Your task to perform on an android device: toggle data saver in the chrome app Image 0: 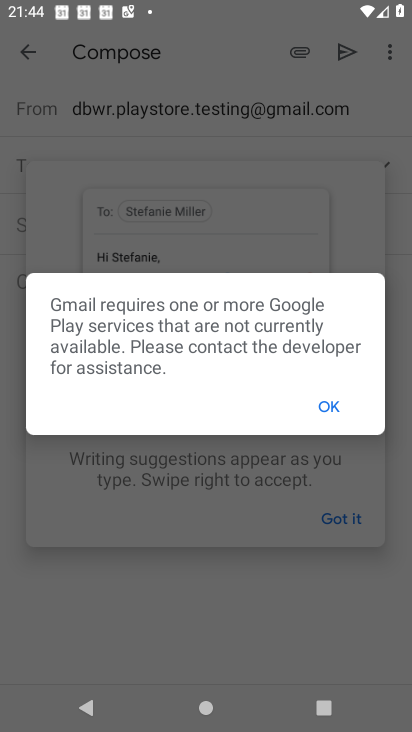
Step 0: press home button
Your task to perform on an android device: toggle data saver in the chrome app Image 1: 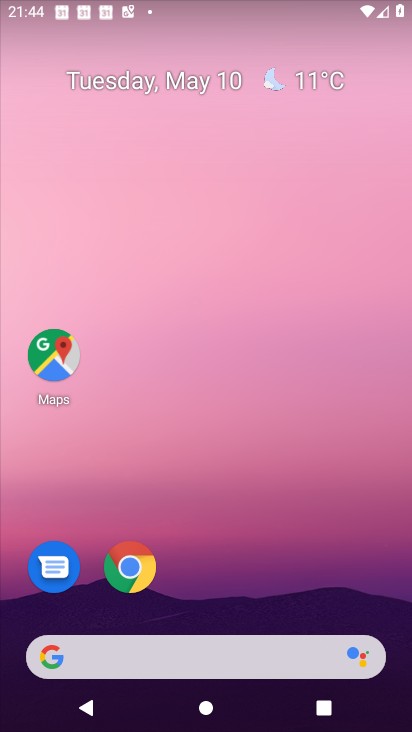
Step 1: drag from (184, 639) to (232, 193)
Your task to perform on an android device: toggle data saver in the chrome app Image 2: 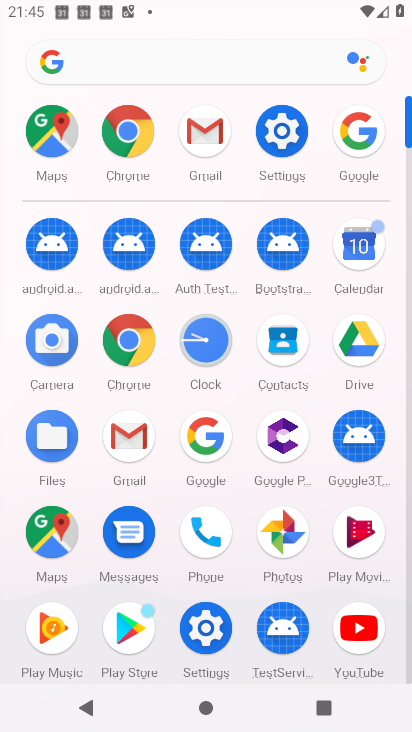
Step 2: click (123, 133)
Your task to perform on an android device: toggle data saver in the chrome app Image 3: 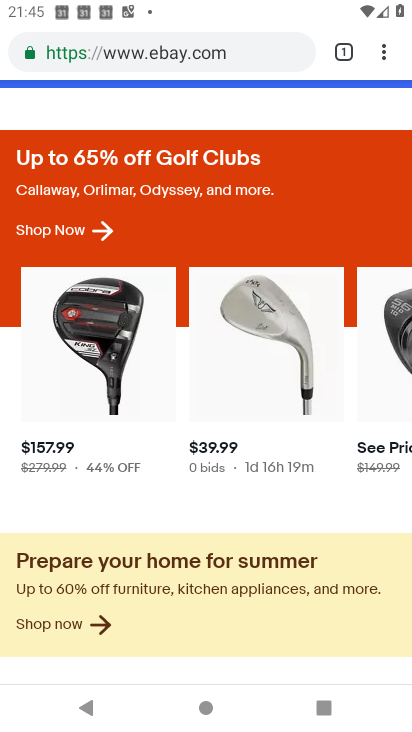
Step 3: click (383, 50)
Your task to perform on an android device: toggle data saver in the chrome app Image 4: 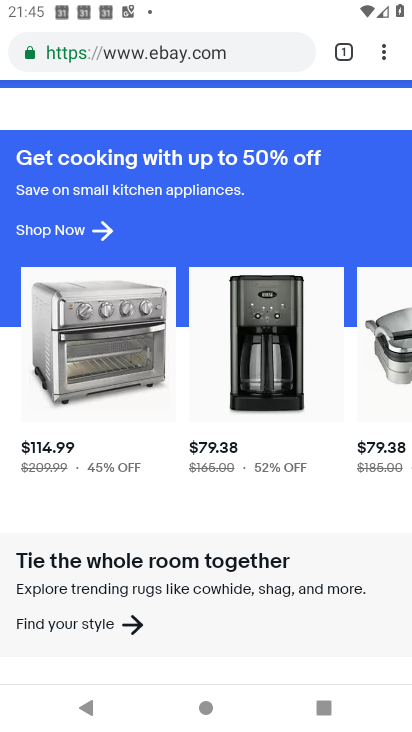
Step 4: click (383, 50)
Your task to perform on an android device: toggle data saver in the chrome app Image 5: 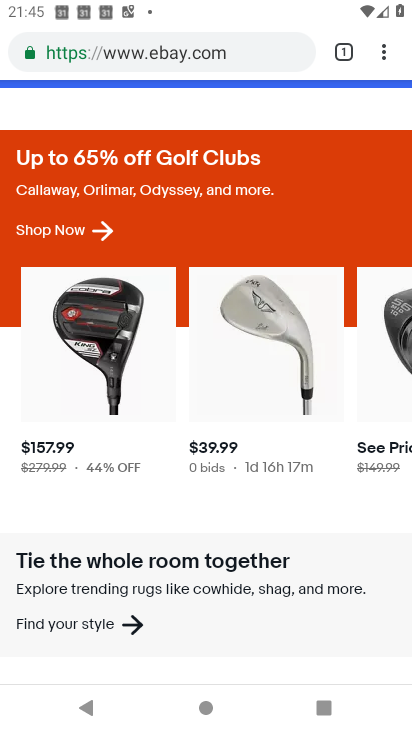
Step 5: click (383, 50)
Your task to perform on an android device: toggle data saver in the chrome app Image 6: 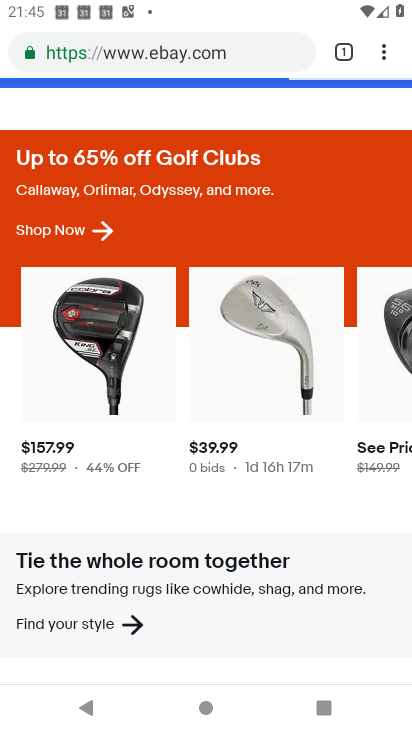
Step 6: click (383, 50)
Your task to perform on an android device: toggle data saver in the chrome app Image 7: 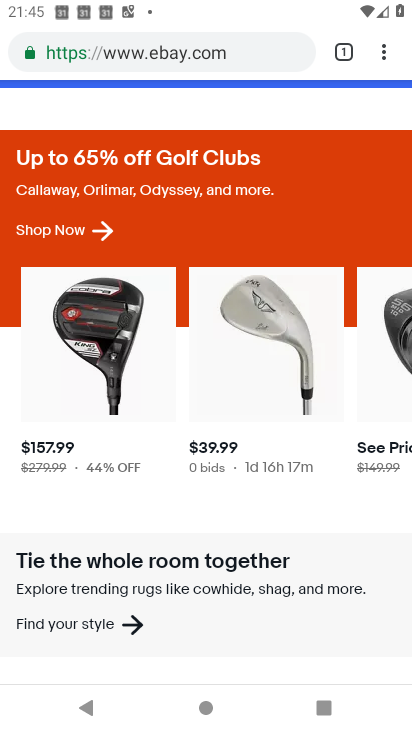
Step 7: click (383, 50)
Your task to perform on an android device: toggle data saver in the chrome app Image 8: 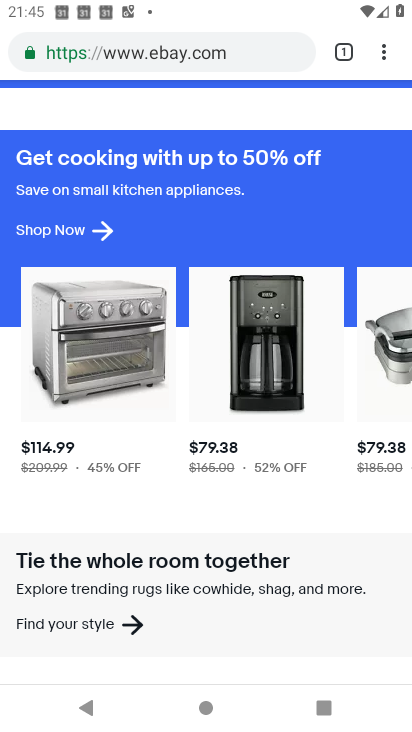
Step 8: click (378, 53)
Your task to perform on an android device: toggle data saver in the chrome app Image 9: 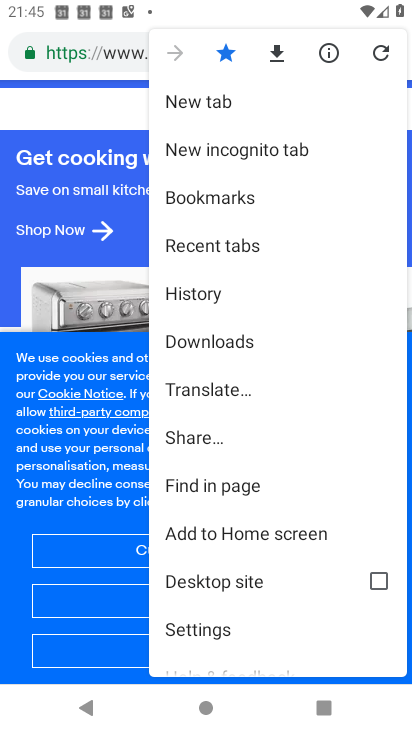
Step 9: click (201, 624)
Your task to perform on an android device: toggle data saver in the chrome app Image 10: 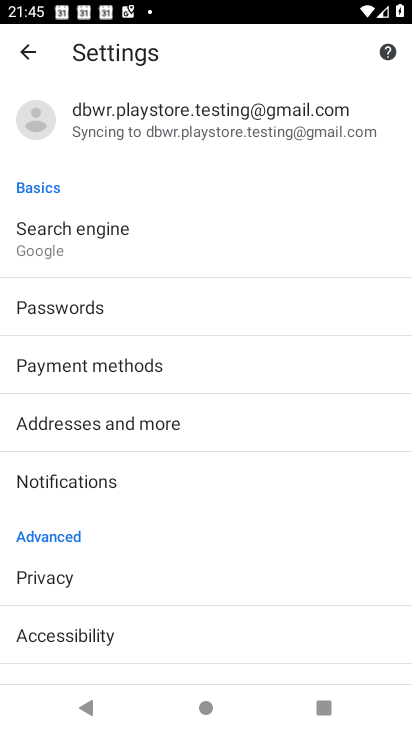
Step 10: drag from (96, 628) to (130, 317)
Your task to perform on an android device: toggle data saver in the chrome app Image 11: 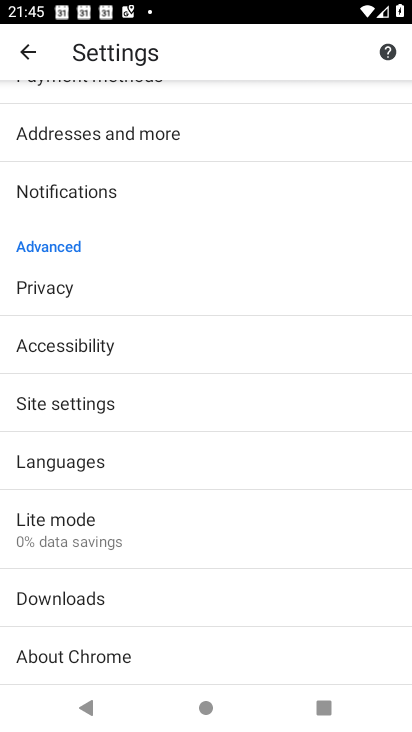
Step 11: click (65, 521)
Your task to perform on an android device: toggle data saver in the chrome app Image 12: 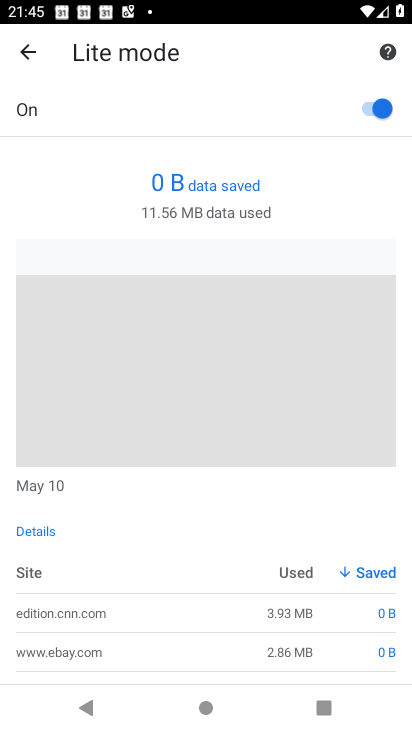
Step 12: click (371, 107)
Your task to perform on an android device: toggle data saver in the chrome app Image 13: 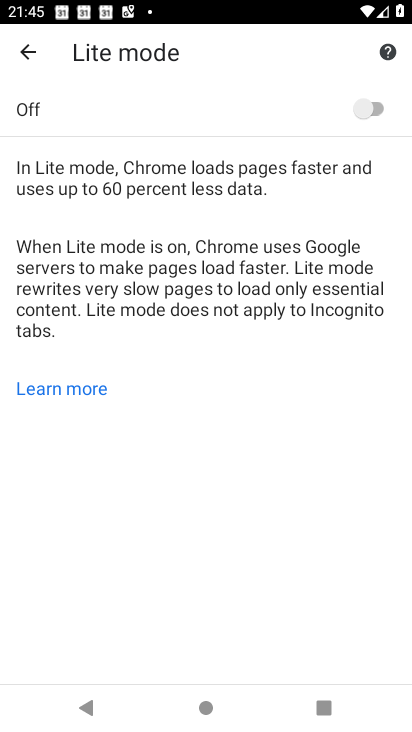
Step 13: task complete